Your task to perform on an android device: Open Google Chrome and open the bookmarks view Image 0: 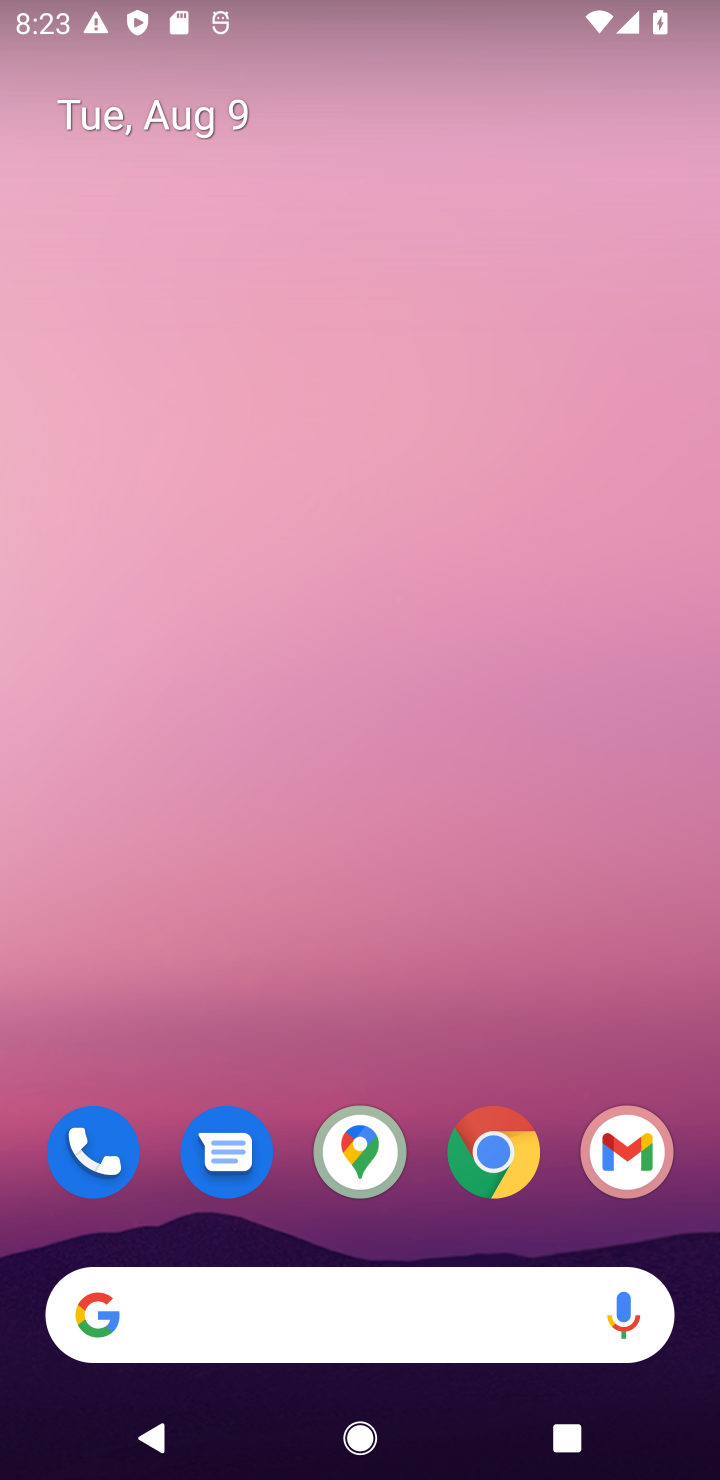
Step 0: click (529, 1179)
Your task to perform on an android device: Open Google Chrome and open the bookmarks view Image 1: 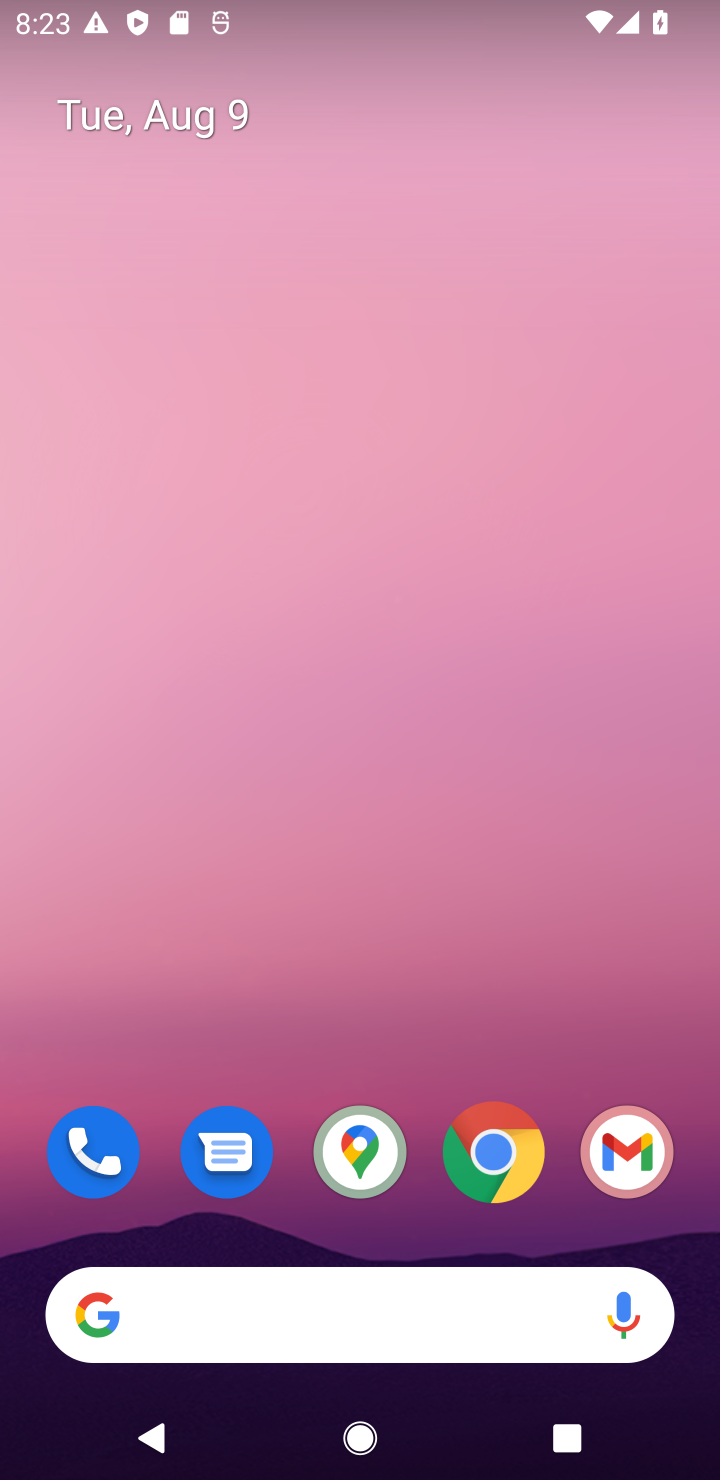
Step 1: click (529, 1179)
Your task to perform on an android device: Open Google Chrome and open the bookmarks view Image 2: 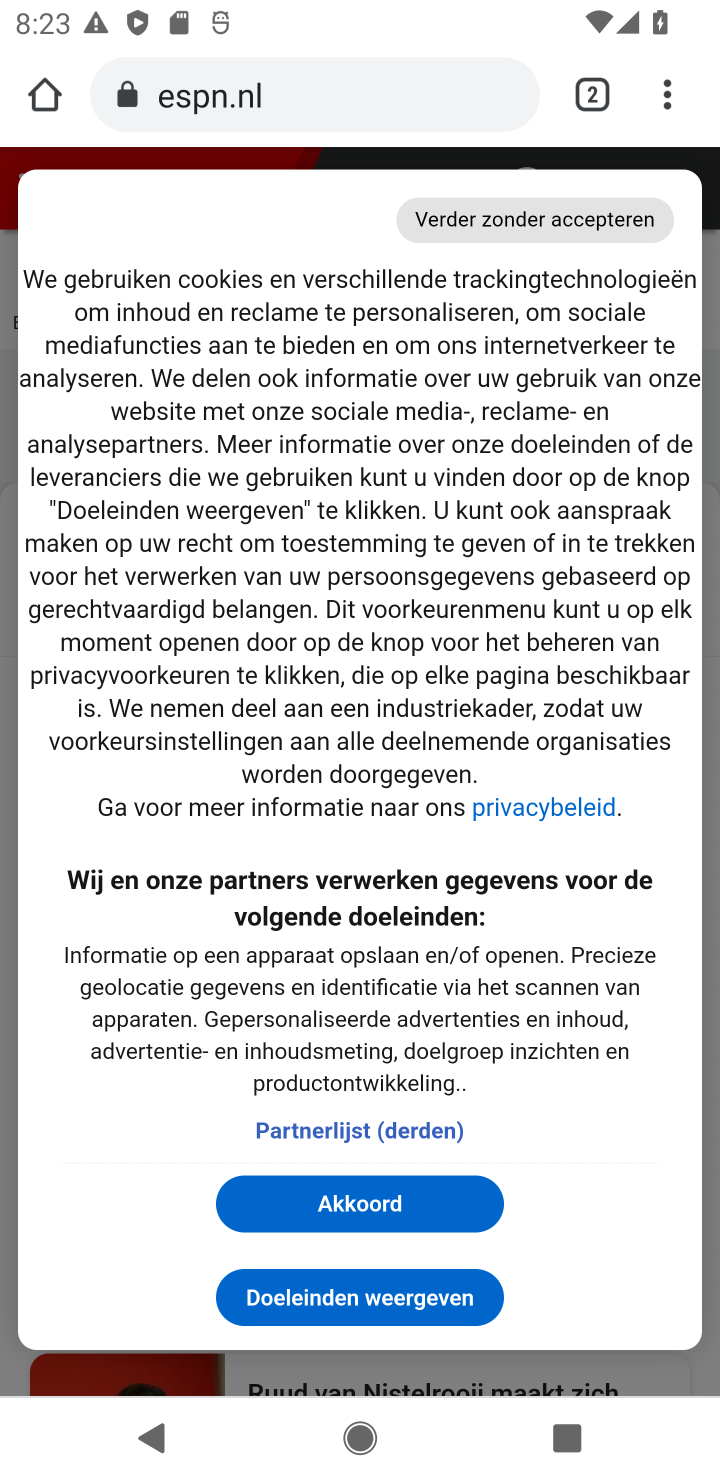
Step 2: click (522, 1175)
Your task to perform on an android device: Open Google Chrome and open the bookmarks view Image 3: 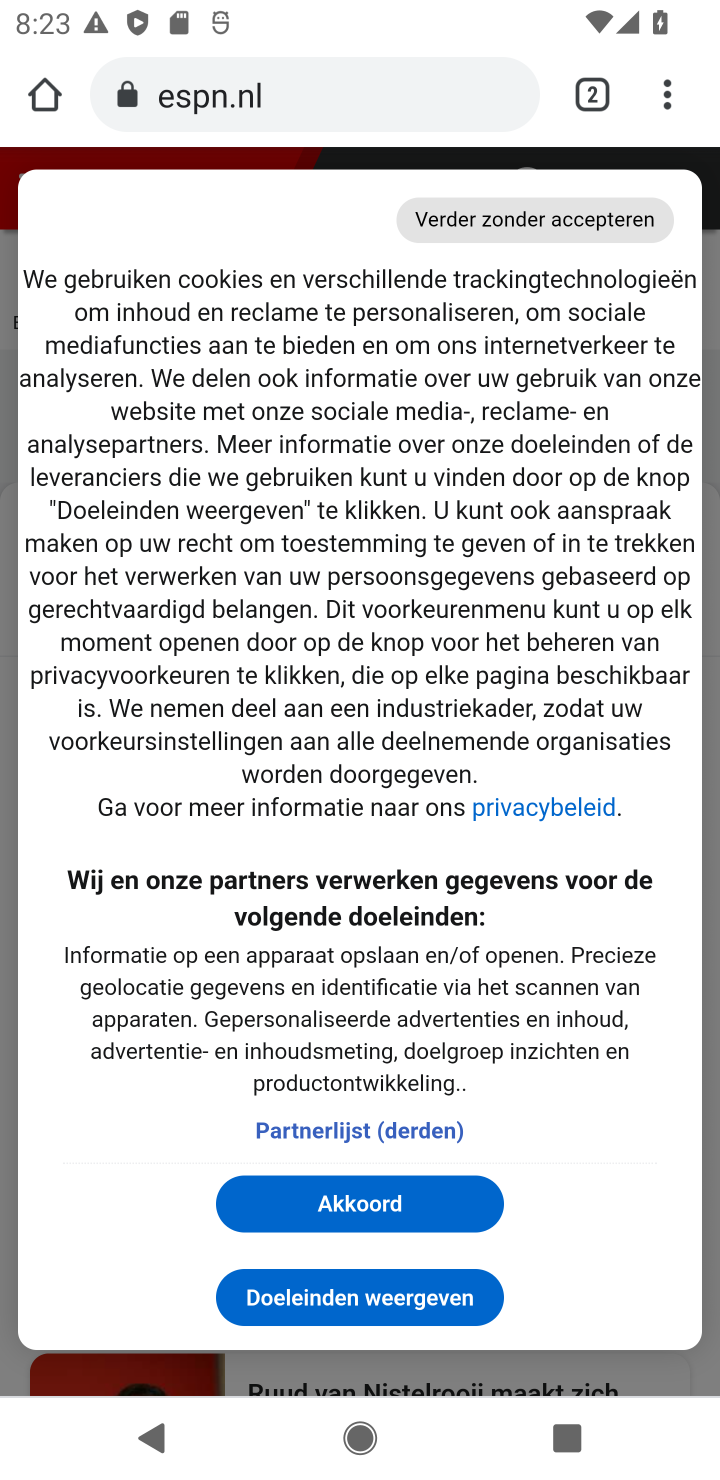
Step 3: click (685, 82)
Your task to perform on an android device: Open Google Chrome and open the bookmarks view Image 4: 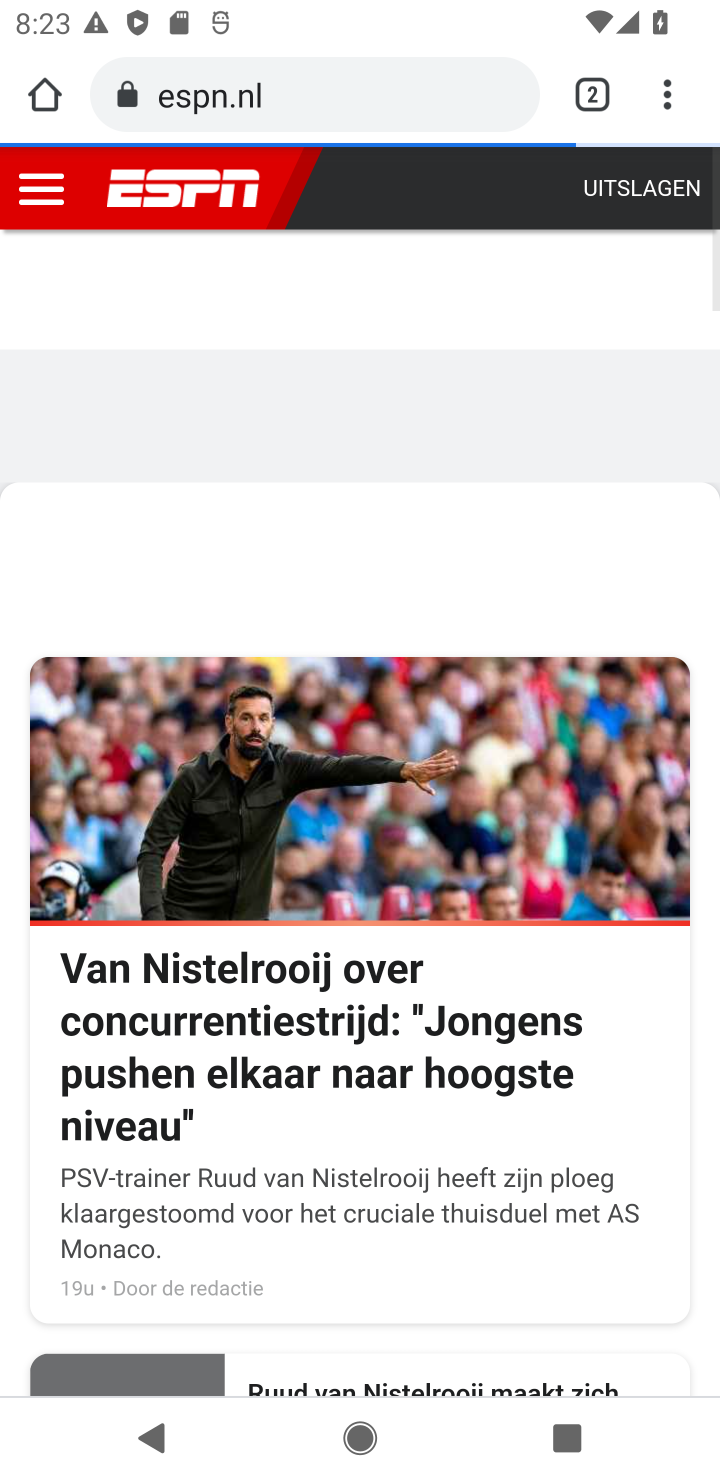
Step 4: click (659, 89)
Your task to perform on an android device: Open Google Chrome and open the bookmarks view Image 5: 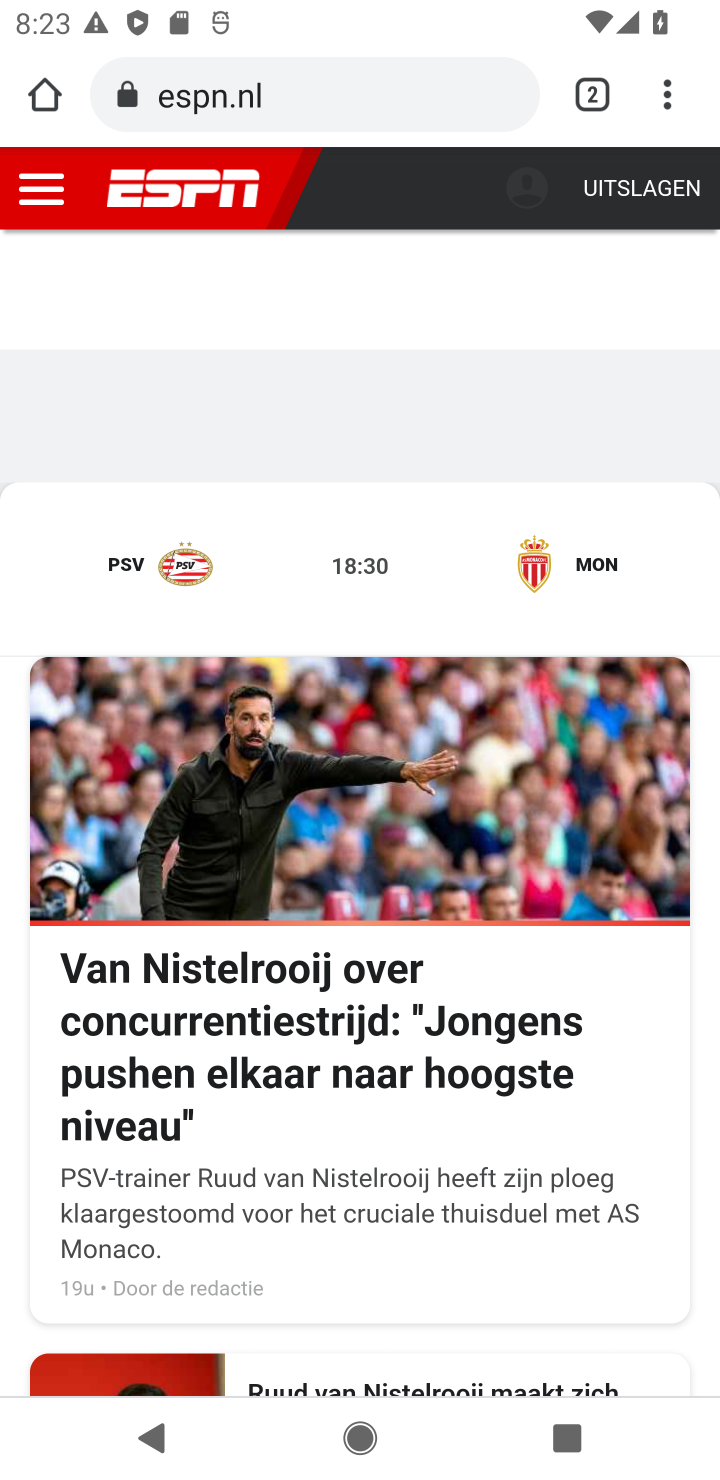
Step 5: click (679, 111)
Your task to perform on an android device: Open Google Chrome and open the bookmarks view Image 6: 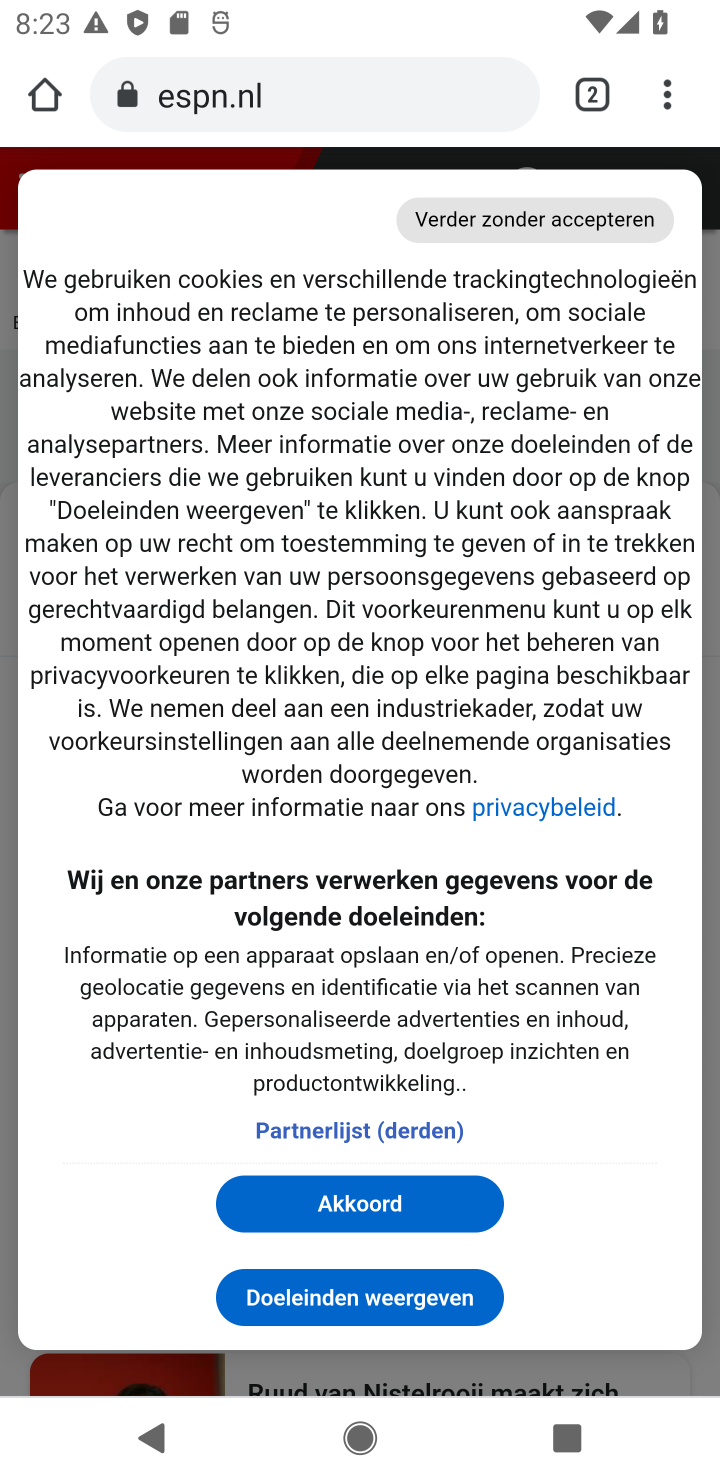
Step 6: click (672, 68)
Your task to perform on an android device: Open Google Chrome and open the bookmarks view Image 7: 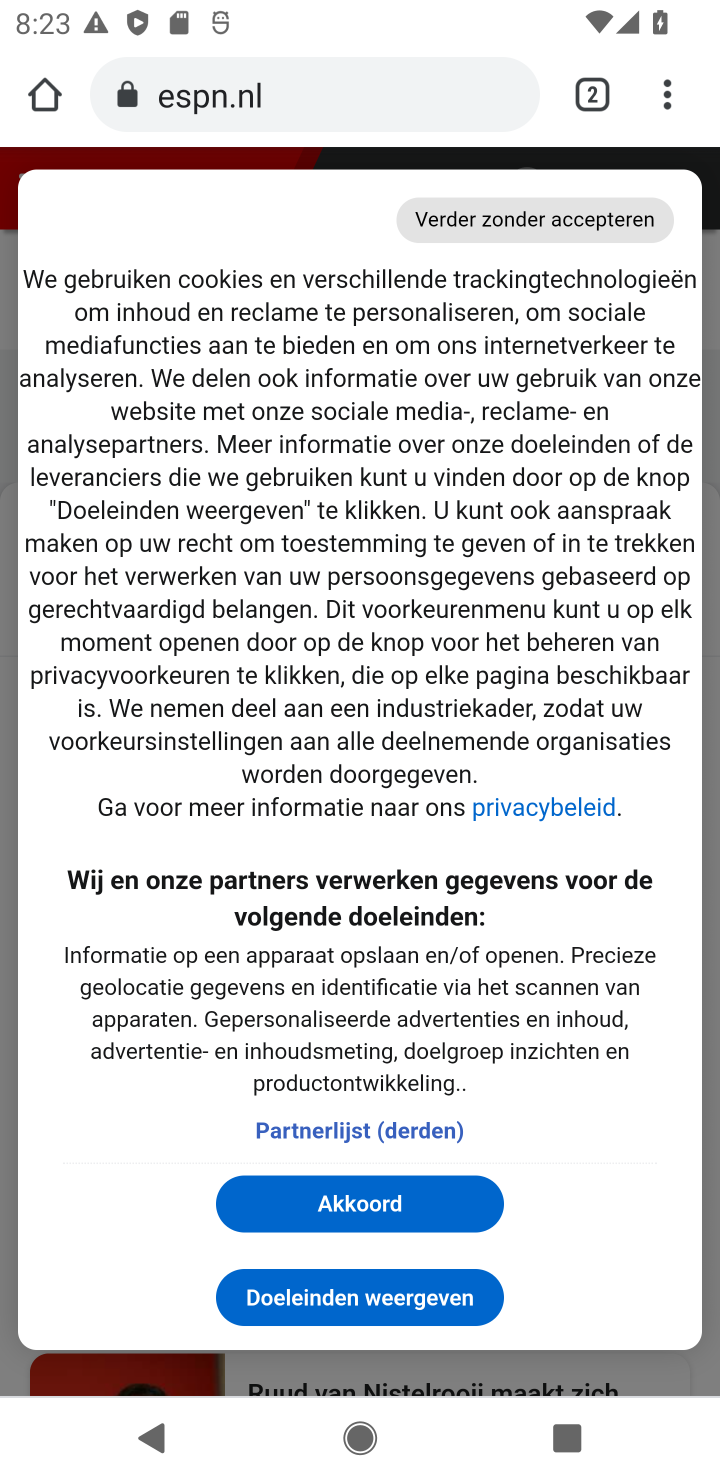
Step 7: click (656, 91)
Your task to perform on an android device: Open Google Chrome and open the bookmarks view Image 8: 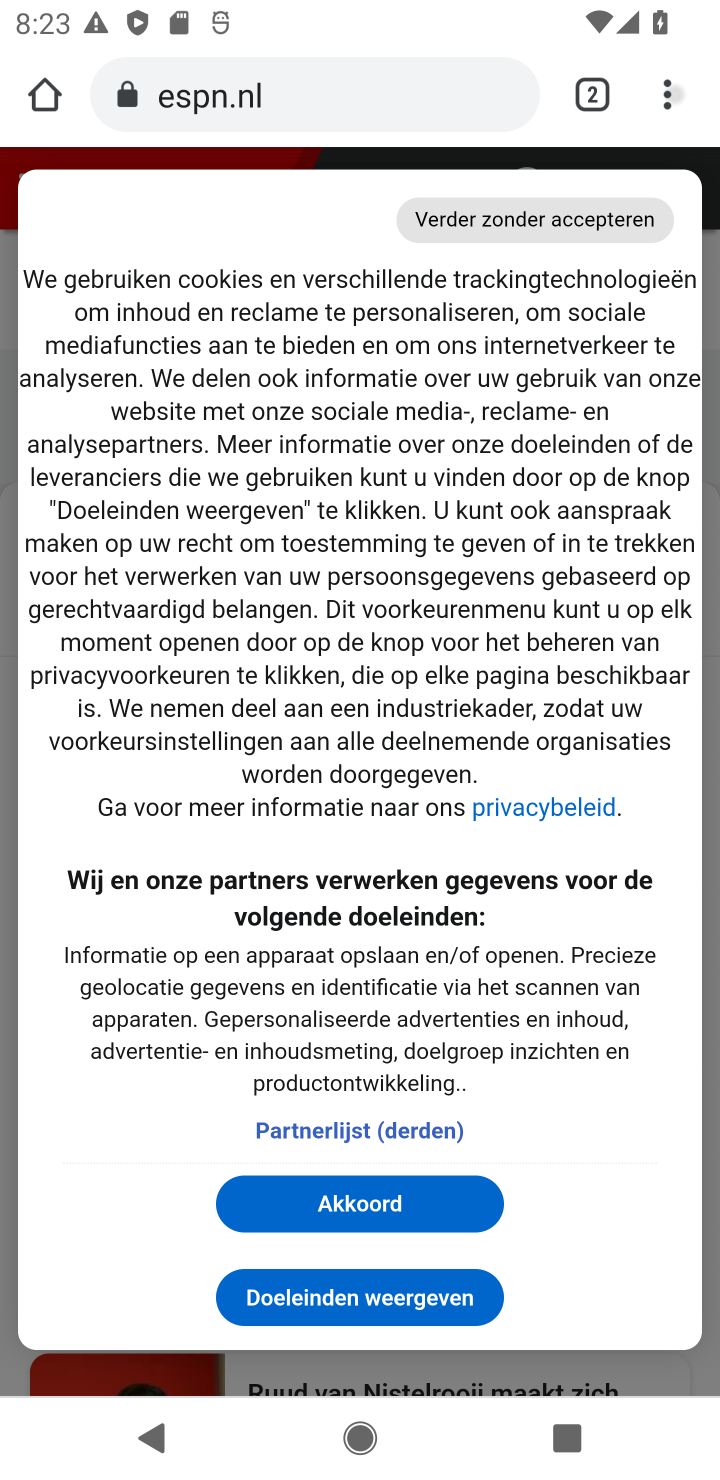
Step 8: click (656, 91)
Your task to perform on an android device: Open Google Chrome and open the bookmarks view Image 9: 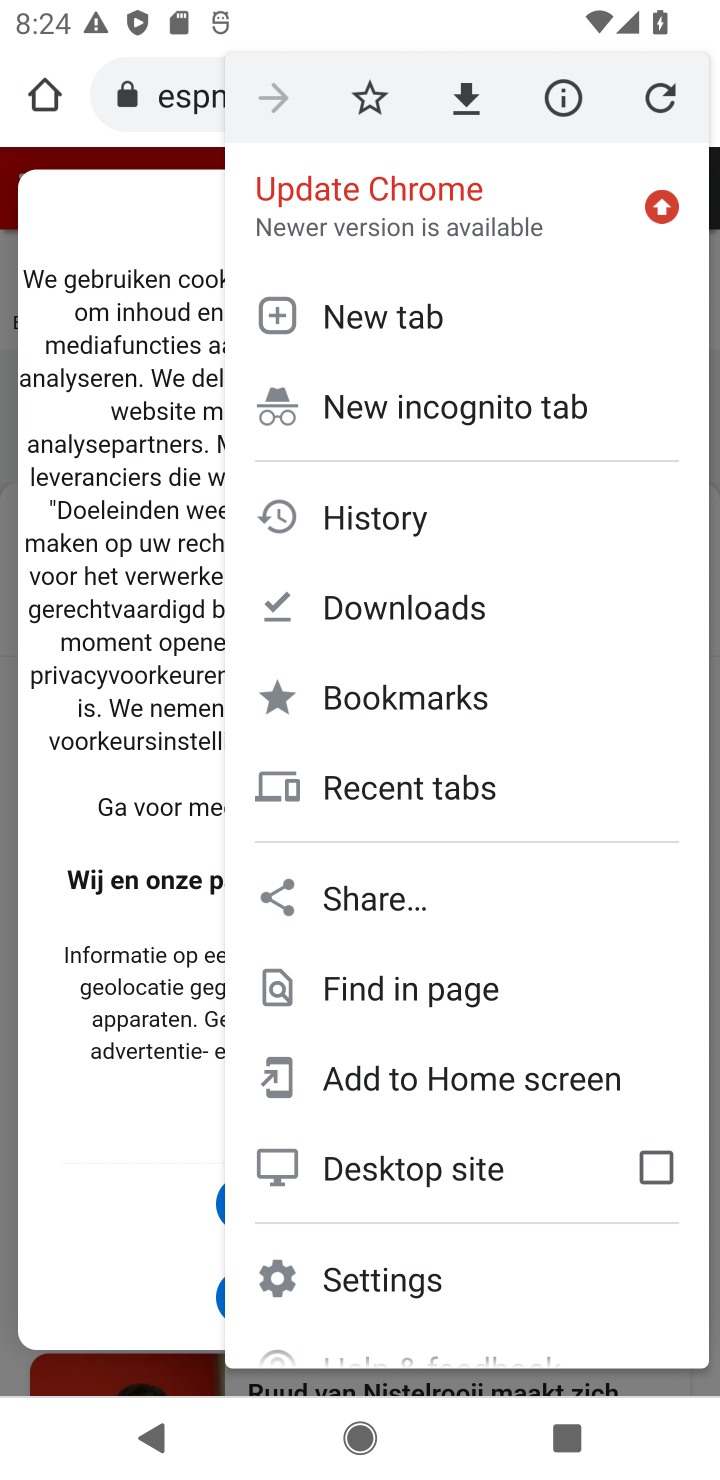
Step 9: click (379, 729)
Your task to perform on an android device: Open Google Chrome and open the bookmarks view Image 10: 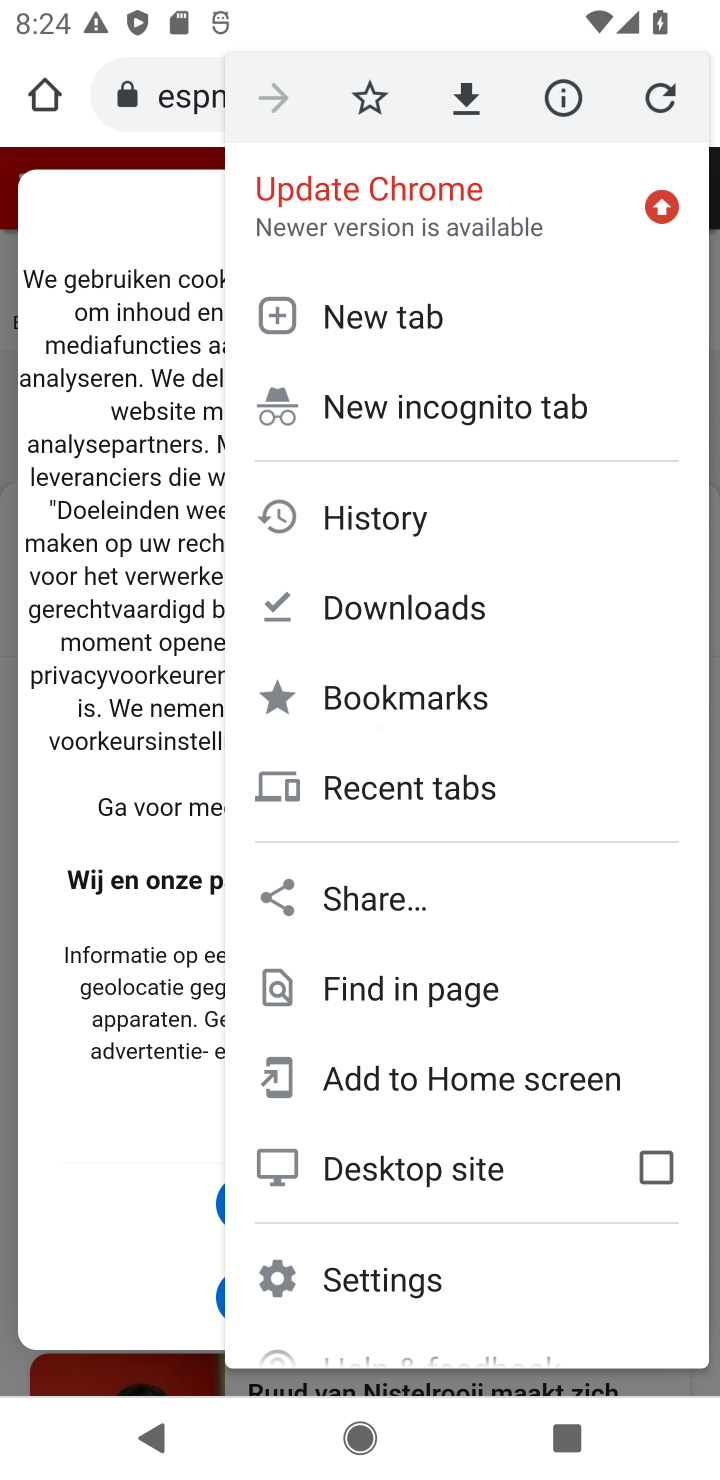
Step 10: click (379, 729)
Your task to perform on an android device: Open Google Chrome and open the bookmarks view Image 11: 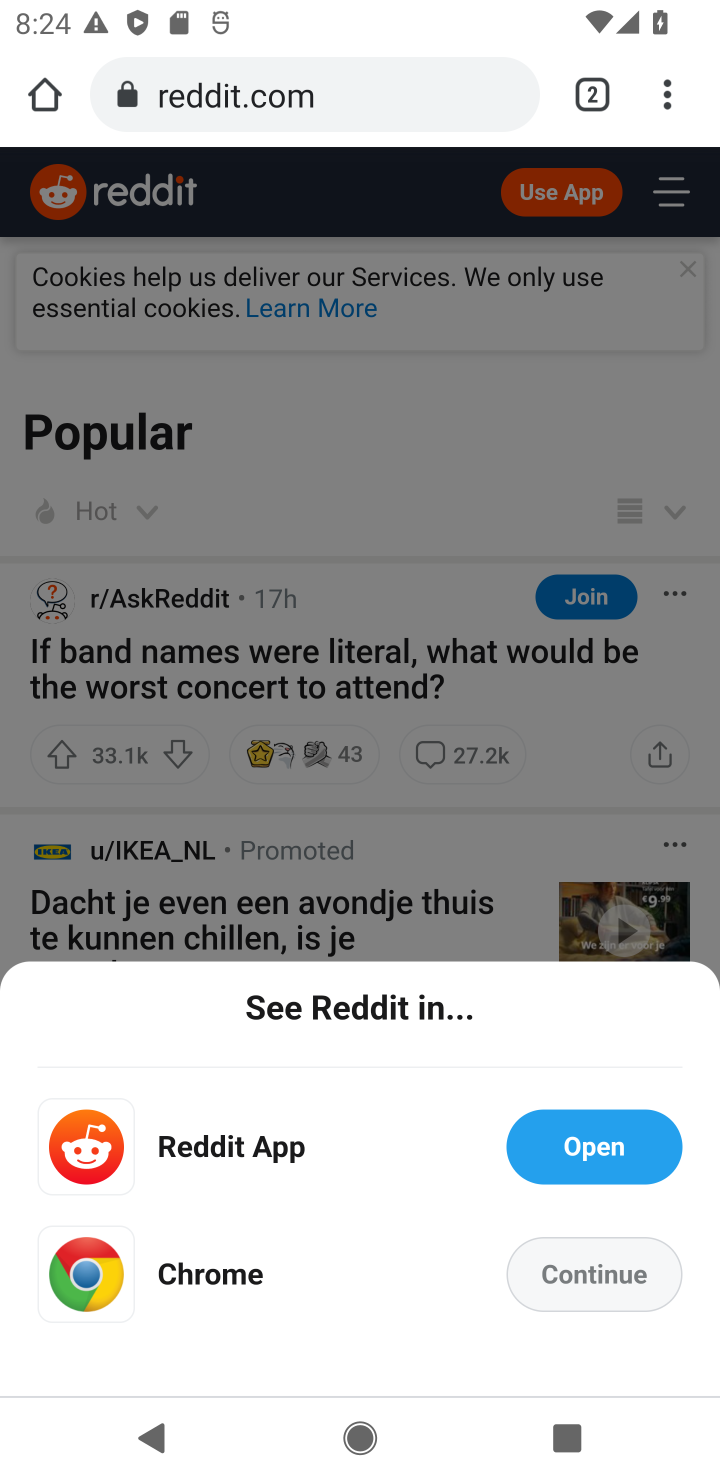
Step 11: click (703, 83)
Your task to perform on an android device: Open Google Chrome and open the bookmarks view Image 12: 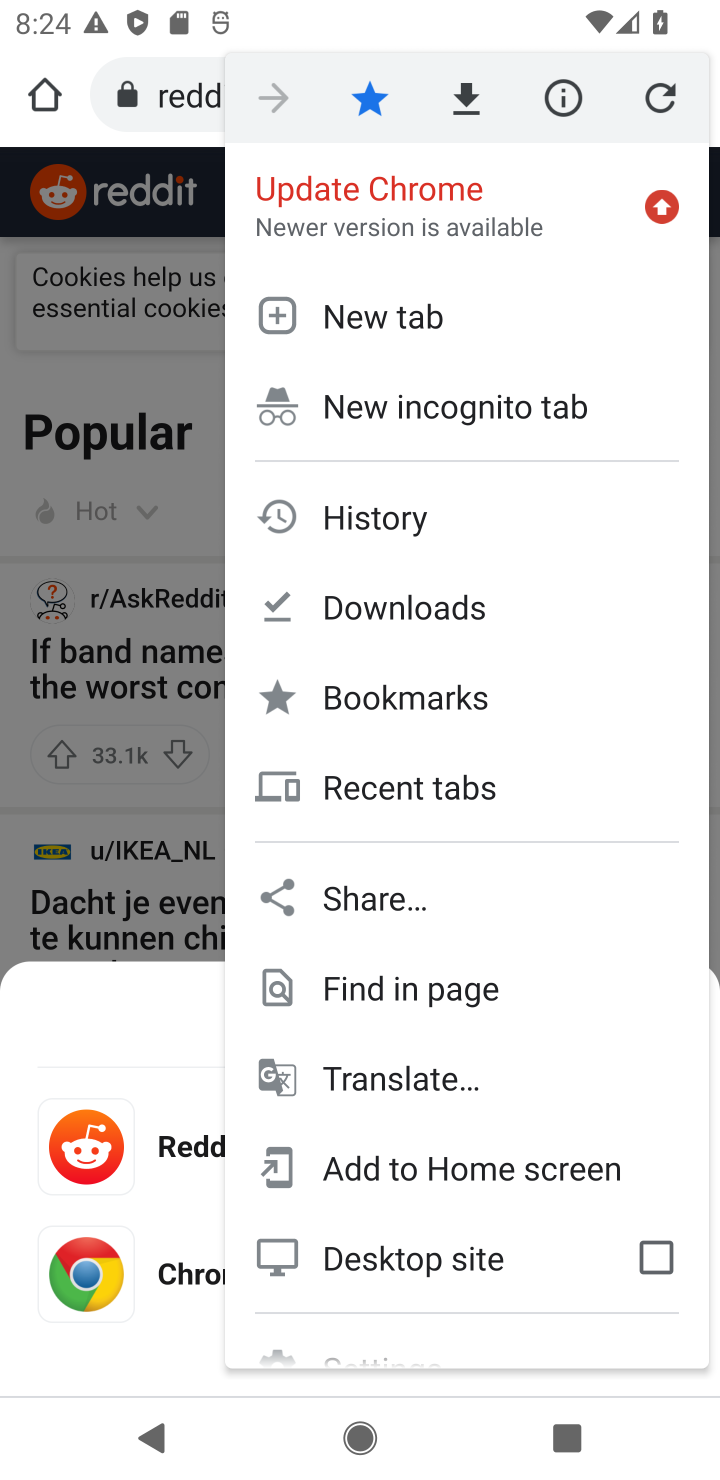
Step 12: click (458, 714)
Your task to perform on an android device: Open Google Chrome and open the bookmarks view Image 13: 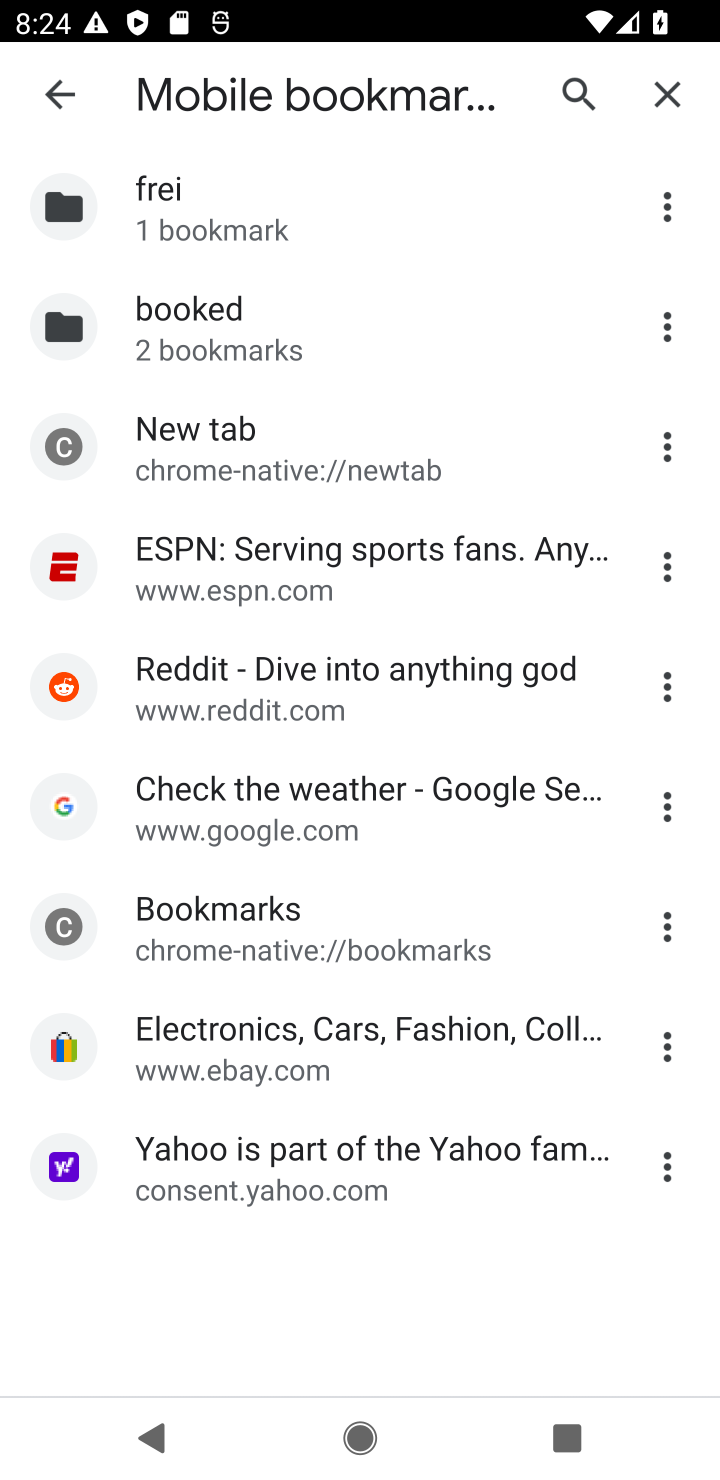
Step 13: task complete